Your task to perform on an android device: Go to settings Image 0: 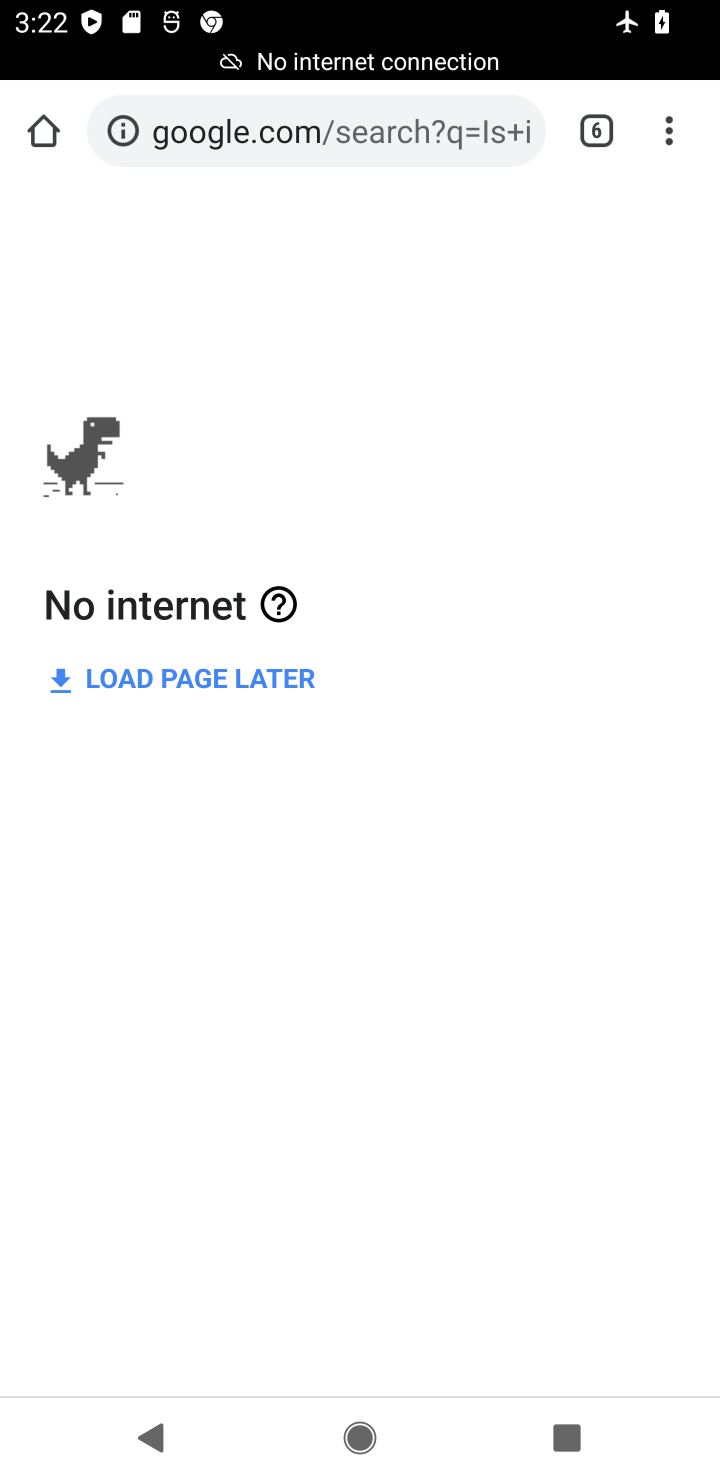
Step 0: press home button
Your task to perform on an android device: Go to settings Image 1: 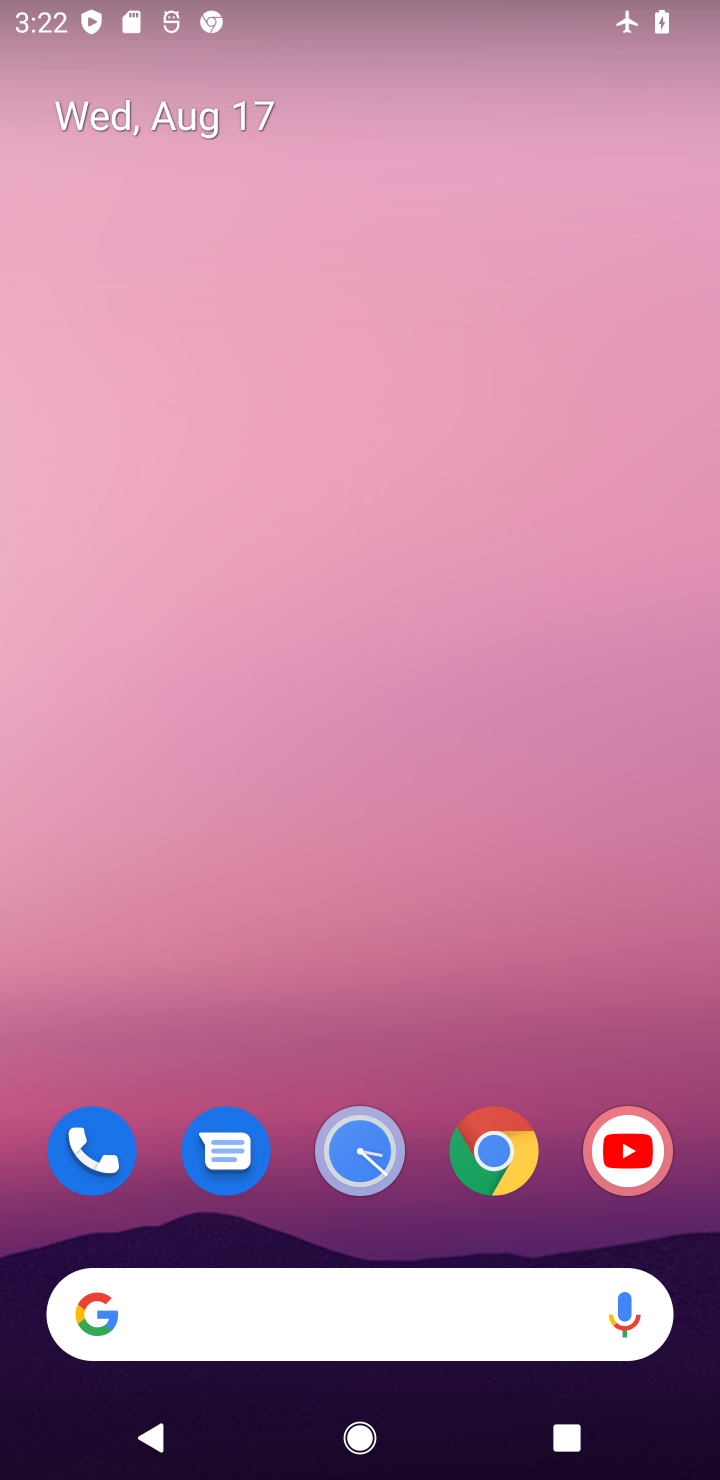
Step 1: drag from (375, 1211) to (245, 58)
Your task to perform on an android device: Go to settings Image 2: 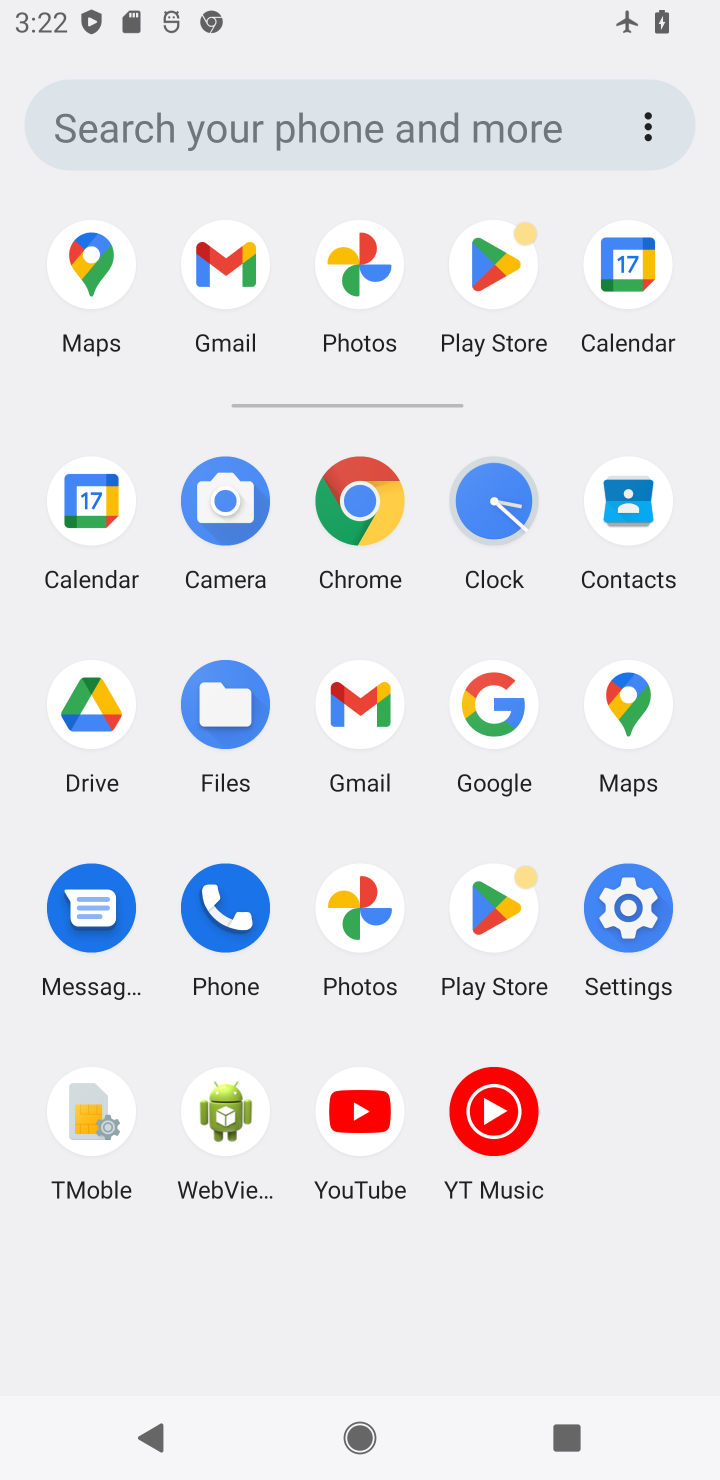
Step 2: click (634, 911)
Your task to perform on an android device: Go to settings Image 3: 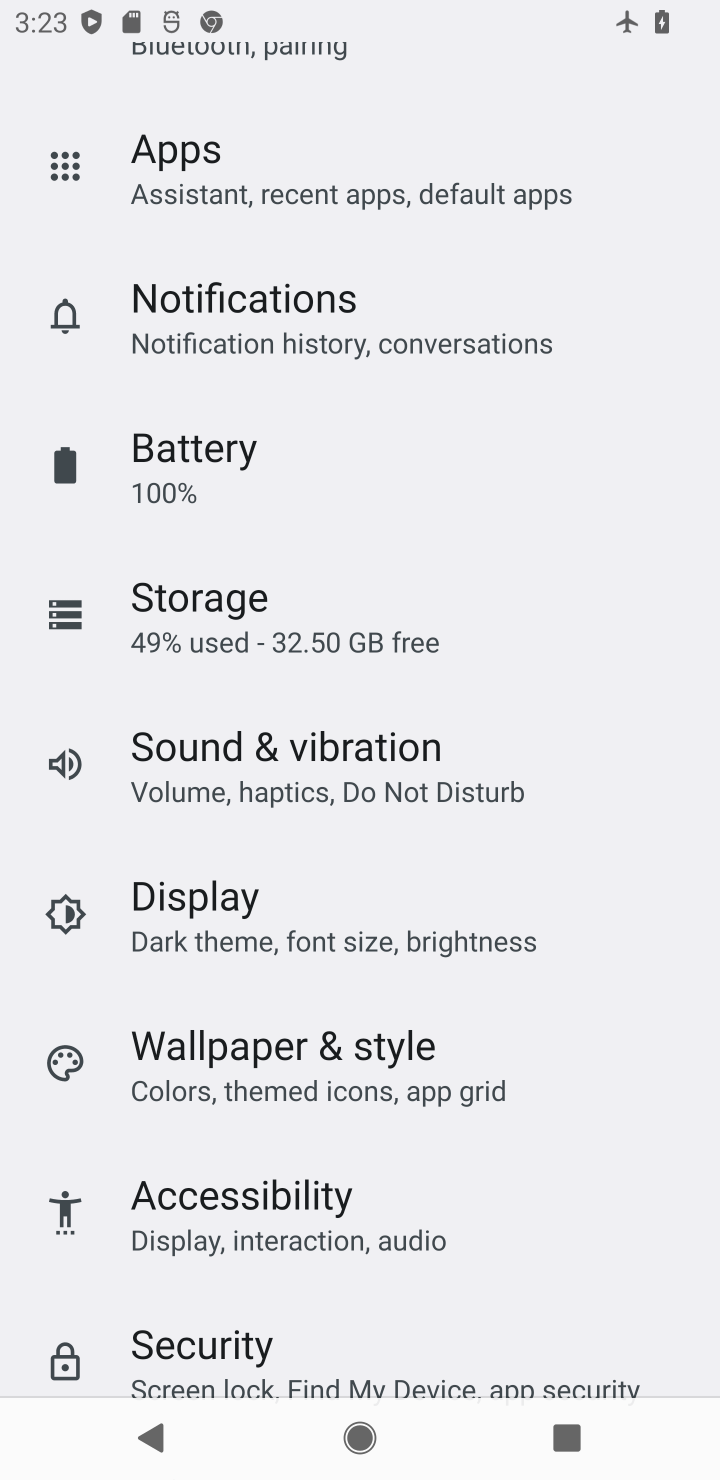
Step 3: task complete